Your task to perform on an android device: Go to accessibility settings Image 0: 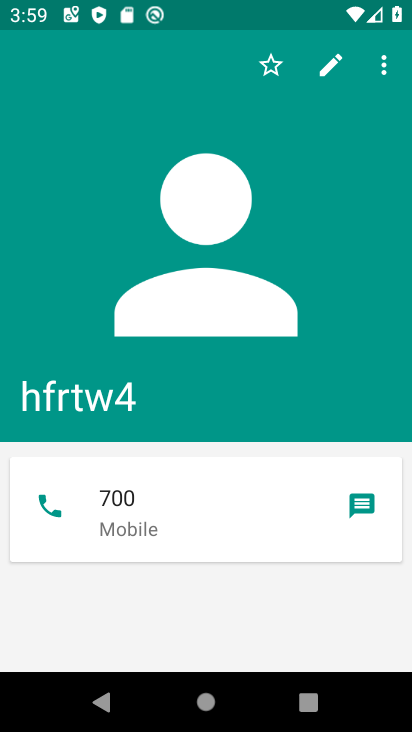
Step 0: press home button
Your task to perform on an android device: Go to accessibility settings Image 1: 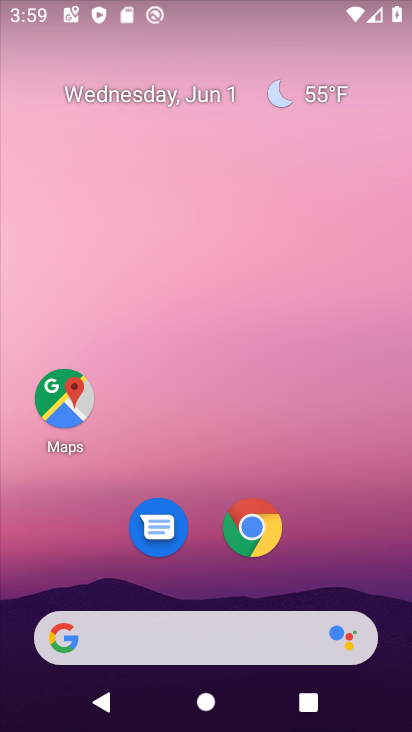
Step 1: drag from (296, 546) to (303, 71)
Your task to perform on an android device: Go to accessibility settings Image 2: 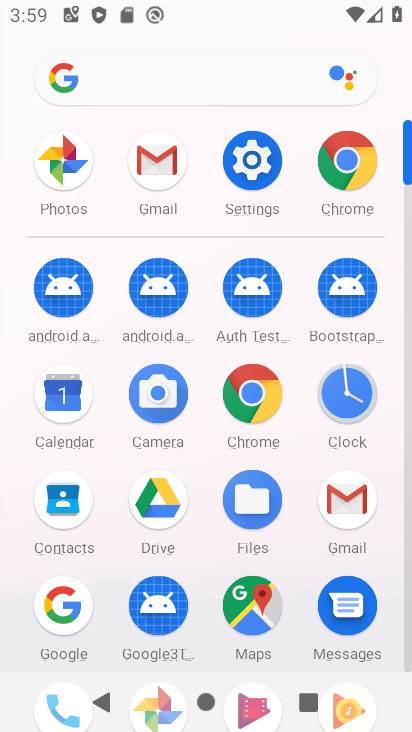
Step 2: click (243, 155)
Your task to perform on an android device: Go to accessibility settings Image 3: 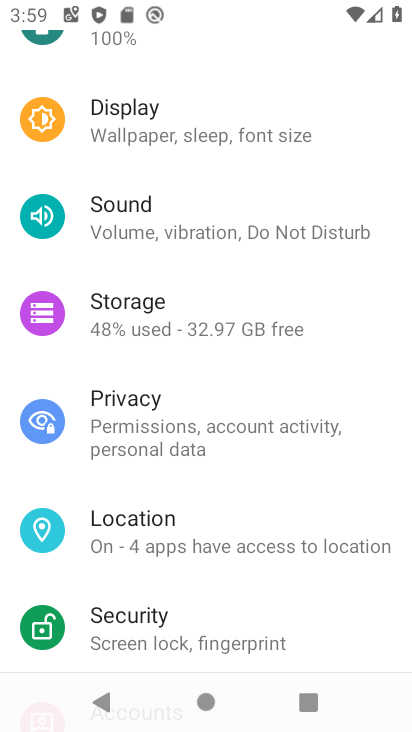
Step 3: drag from (218, 616) to (213, 103)
Your task to perform on an android device: Go to accessibility settings Image 4: 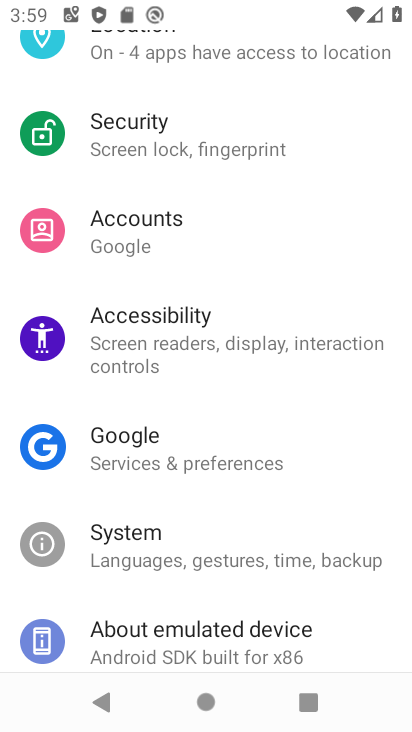
Step 4: click (107, 340)
Your task to perform on an android device: Go to accessibility settings Image 5: 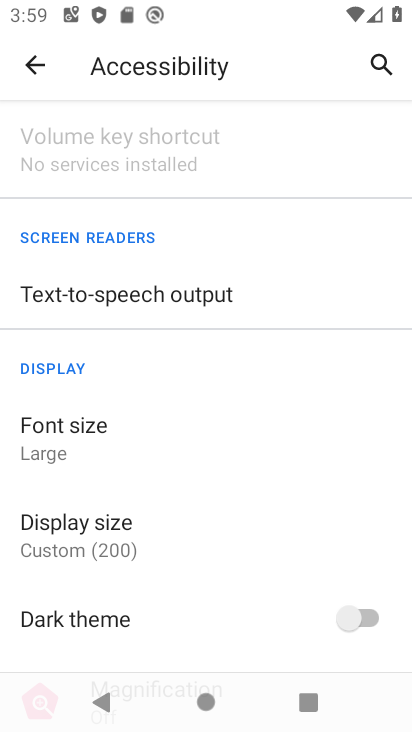
Step 5: task complete